Your task to perform on an android device: Go to Maps Image 0: 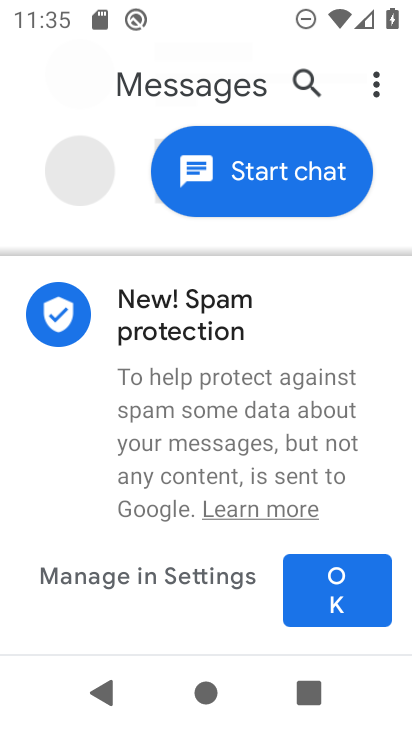
Step 0: press home button
Your task to perform on an android device: Go to Maps Image 1: 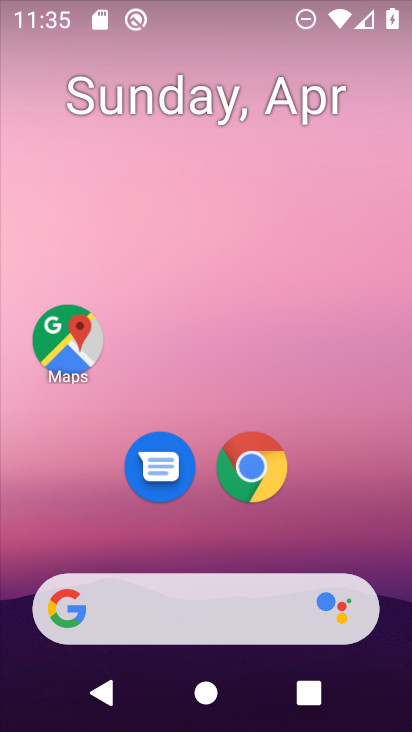
Step 1: drag from (368, 539) to (350, 103)
Your task to perform on an android device: Go to Maps Image 2: 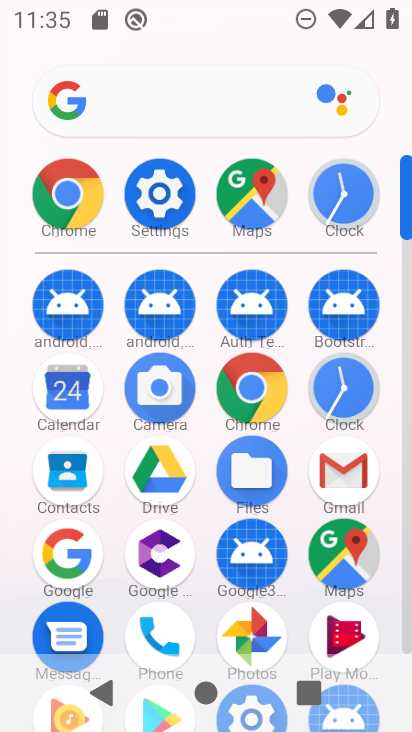
Step 2: click (266, 209)
Your task to perform on an android device: Go to Maps Image 3: 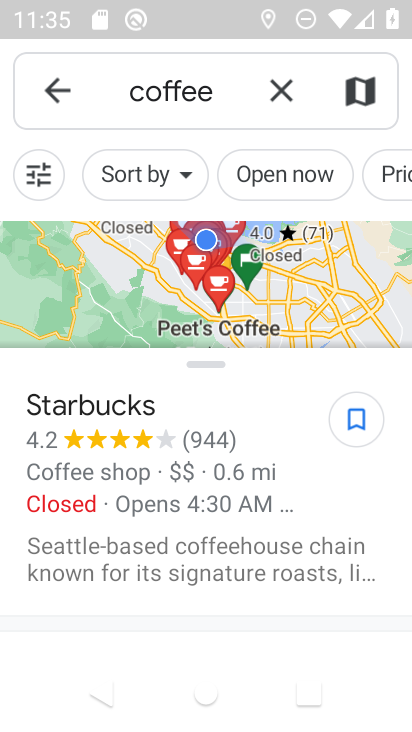
Step 3: task complete